Your task to perform on an android device: Do I have any events tomorrow? Image 0: 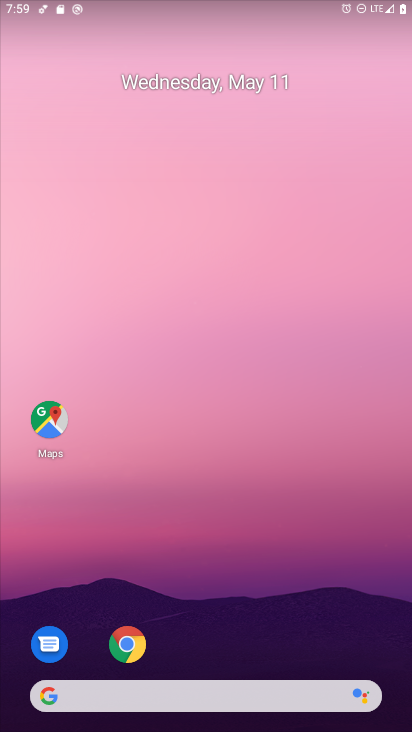
Step 0: drag from (246, 585) to (168, 100)
Your task to perform on an android device: Do I have any events tomorrow? Image 1: 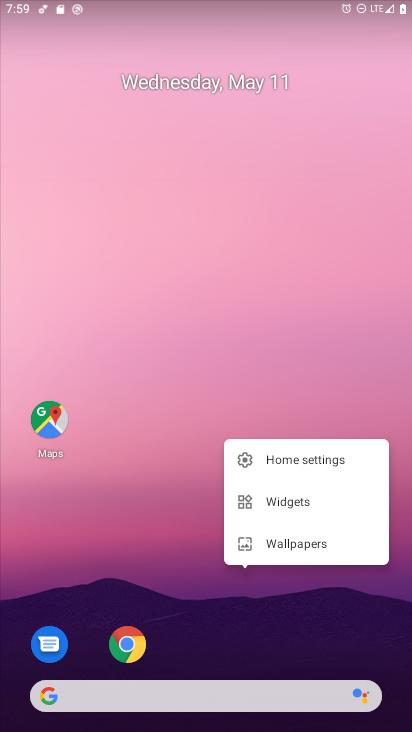
Step 1: click (238, 388)
Your task to perform on an android device: Do I have any events tomorrow? Image 2: 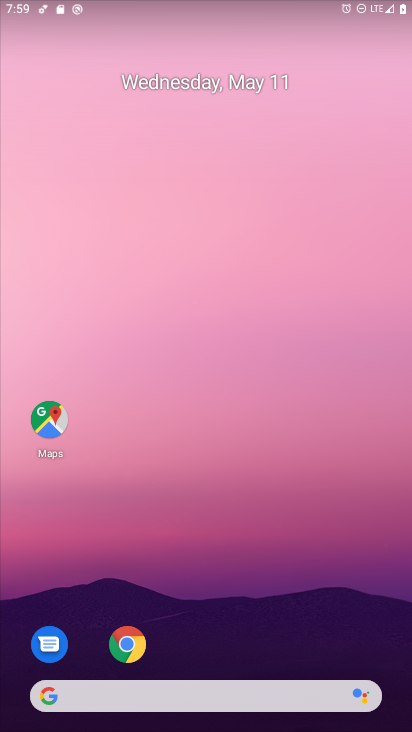
Step 2: drag from (211, 589) to (84, 8)
Your task to perform on an android device: Do I have any events tomorrow? Image 3: 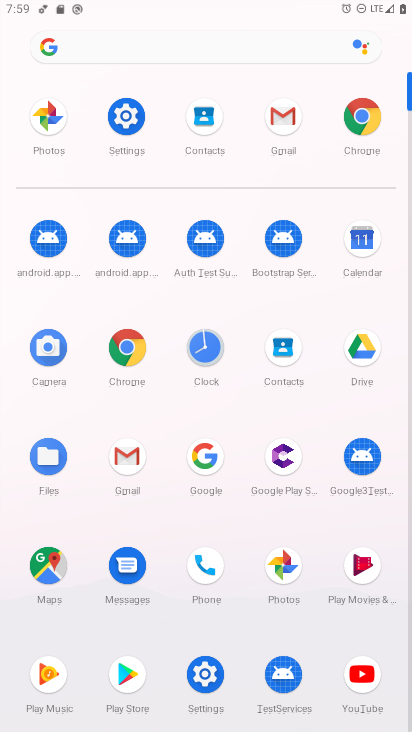
Step 3: click (359, 240)
Your task to perform on an android device: Do I have any events tomorrow? Image 4: 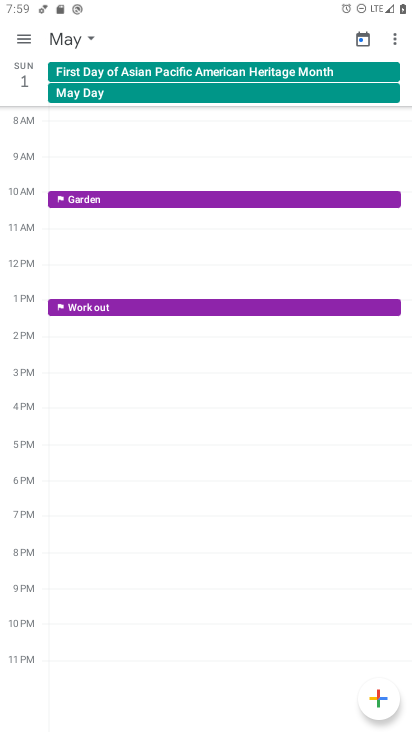
Step 4: click (79, 33)
Your task to perform on an android device: Do I have any events tomorrow? Image 5: 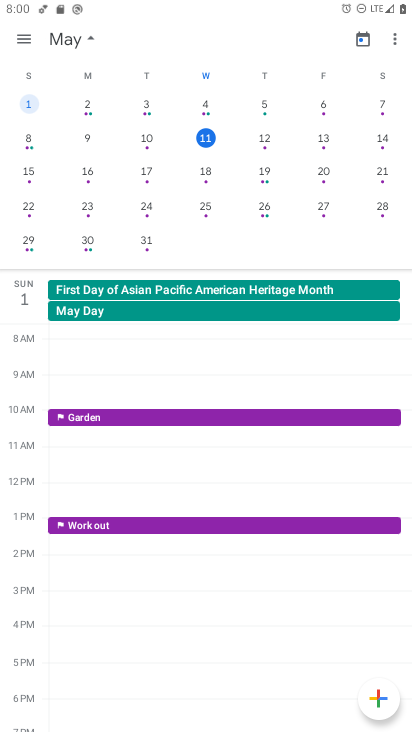
Step 5: click (262, 138)
Your task to perform on an android device: Do I have any events tomorrow? Image 6: 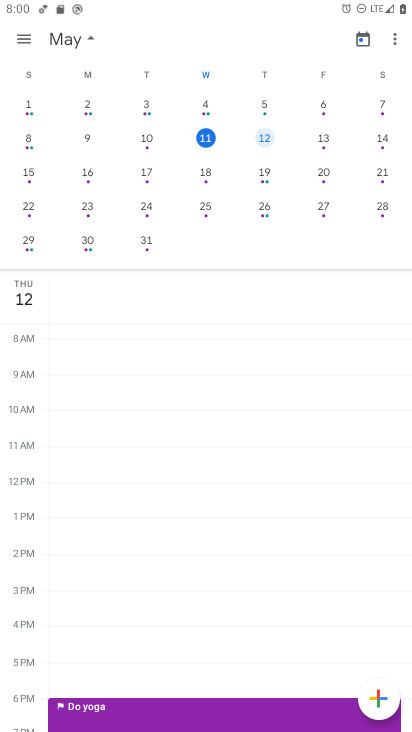
Step 6: click (260, 136)
Your task to perform on an android device: Do I have any events tomorrow? Image 7: 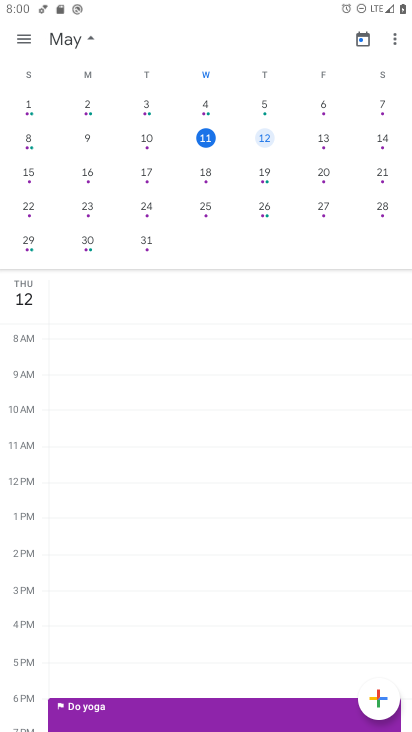
Step 7: click (260, 136)
Your task to perform on an android device: Do I have any events tomorrow? Image 8: 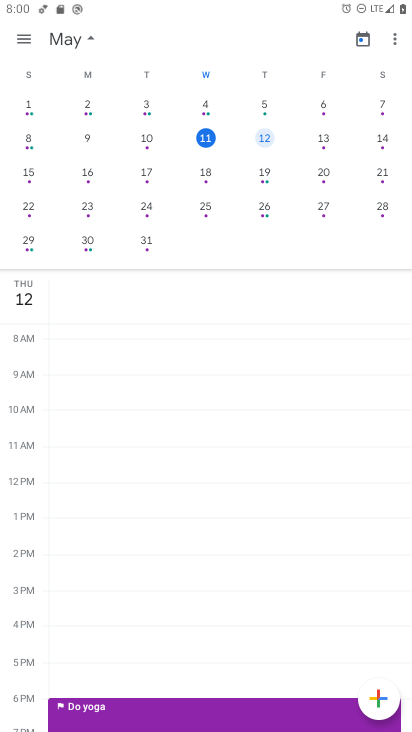
Step 8: task complete